Your task to perform on an android device: turn pop-ups off in chrome Image 0: 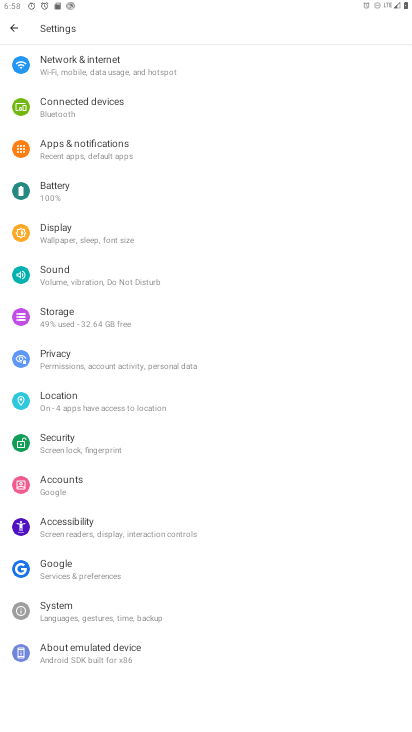
Step 0: press home button
Your task to perform on an android device: turn pop-ups off in chrome Image 1: 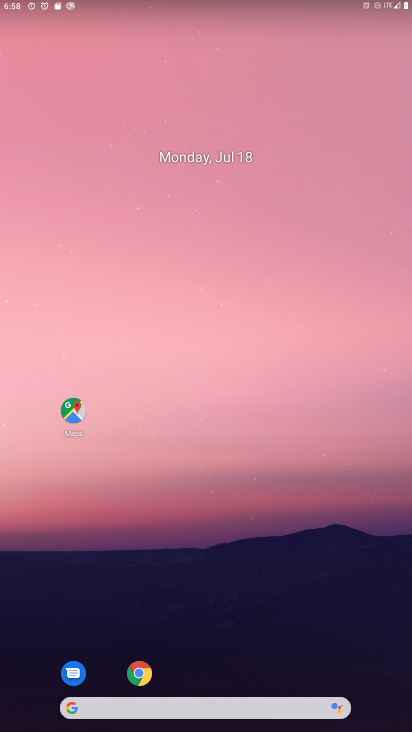
Step 1: drag from (205, 525) to (267, 178)
Your task to perform on an android device: turn pop-ups off in chrome Image 2: 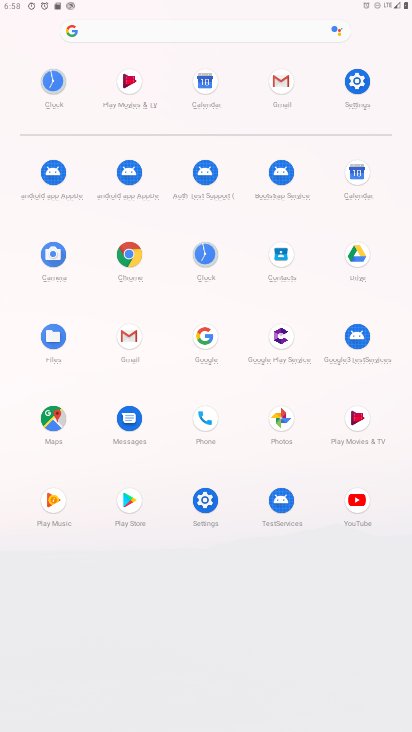
Step 2: click (124, 251)
Your task to perform on an android device: turn pop-ups off in chrome Image 3: 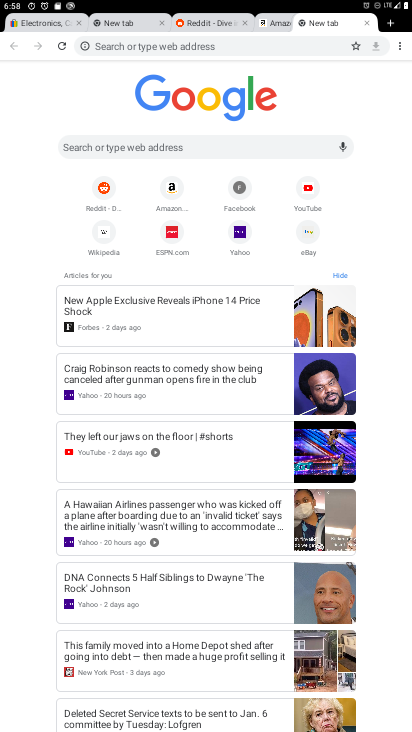
Step 3: task complete